Your task to perform on an android device: turn off data saver in the chrome app Image 0: 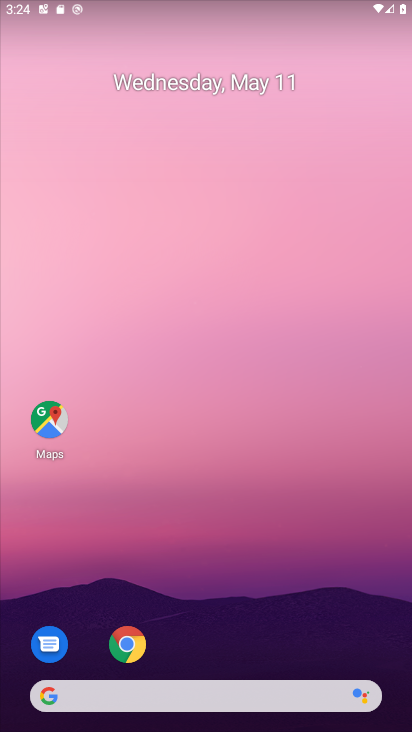
Step 0: drag from (205, 675) to (228, 1)
Your task to perform on an android device: turn off data saver in the chrome app Image 1: 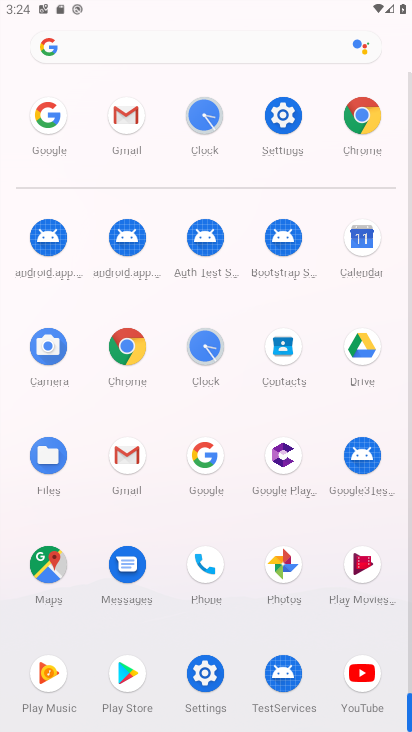
Step 1: click (126, 349)
Your task to perform on an android device: turn off data saver in the chrome app Image 2: 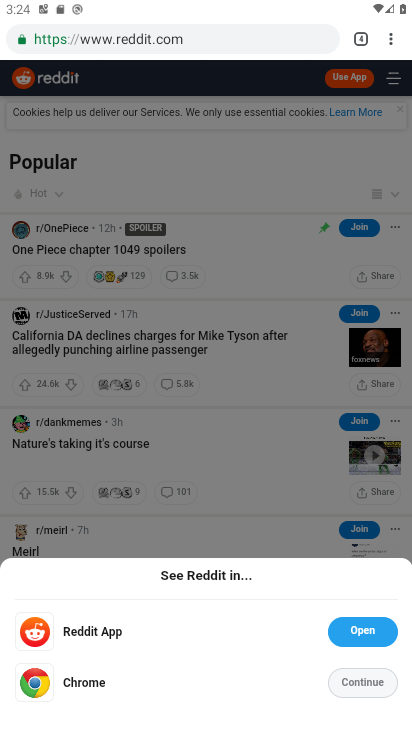
Step 2: drag from (386, 40) to (254, 467)
Your task to perform on an android device: turn off data saver in the chrome app Image 3: 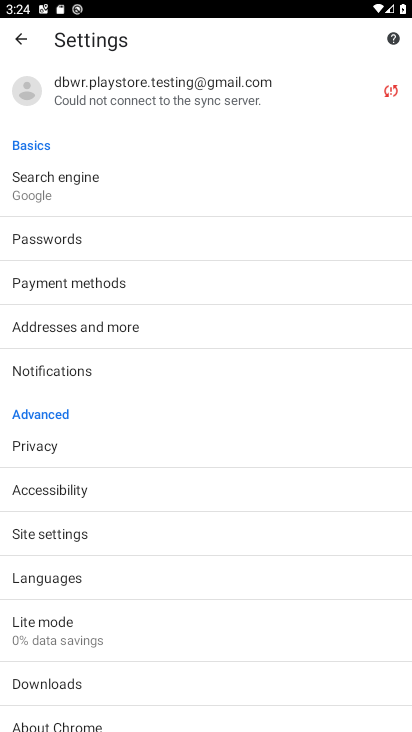
Step 3: click (70, 632)
Your task to perform on an android device: turn off data saver in the chrome app Image 4: 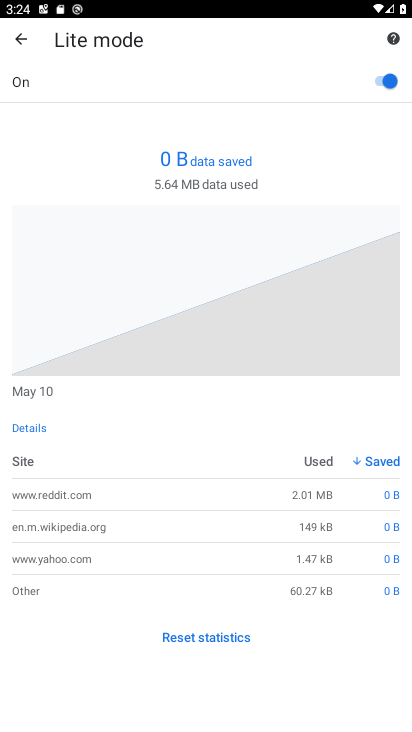
Step 4: click (390, 91)
Your task to perform on an android device: turn off data saver in the chrome app Image 5: 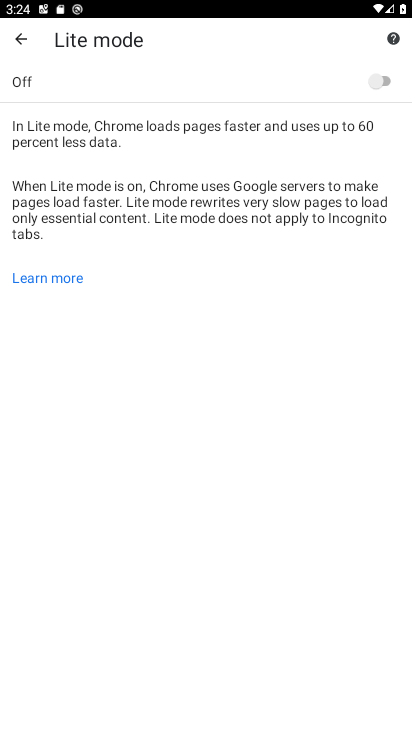
Step 5: task complete